Your task to perform on an android device: Clear the cart on bestbuy.com. Search for "macbook" on bestbuy.com, select the first entry, add it to the cart, then select checkout. Image 0: 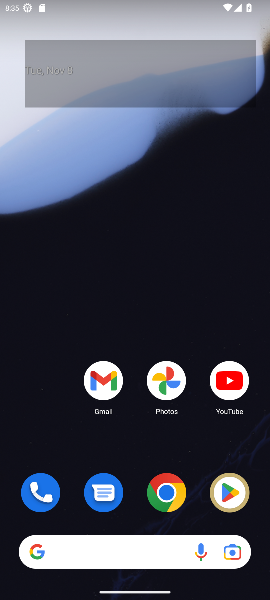
Step 0: press home button
Your task to perform on an android device: Clear the cart on bestbuy.com. Search for "macbook" on bestbuy.com, select the first entry, add it to the cart, then select checkout. Image 1: 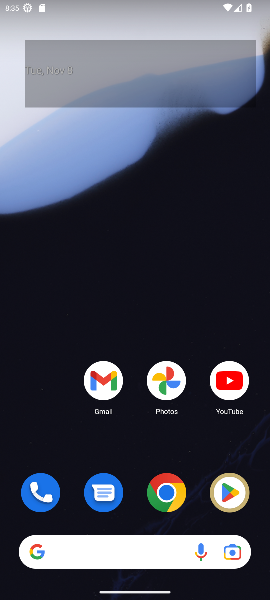
Step 1: click (136, 570)
Your task to perform on an android device: Clear the cart on bestbuy.com. Search for "macbook" on bestbuy.com, select the first entry, add it to the cart, then select checkout. Image 2: 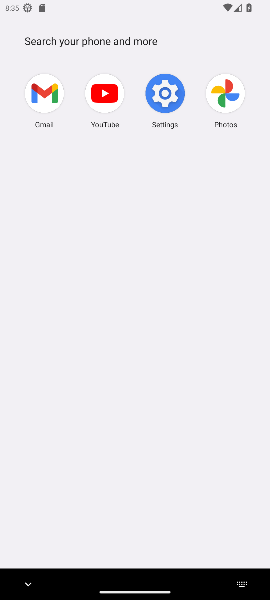
Step 2: type "bestbuy"
Your task to perform on an android device: Clear the cart on bestbuy.com. Search for "macbook" on bestbuy.com, select the first entry, add it to the cart, then select checkout. Image 3: 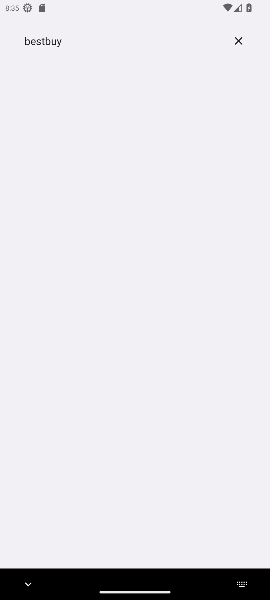
Step 3: task complete